Your task to perform on an android device: Open Google Chrome Image 0: 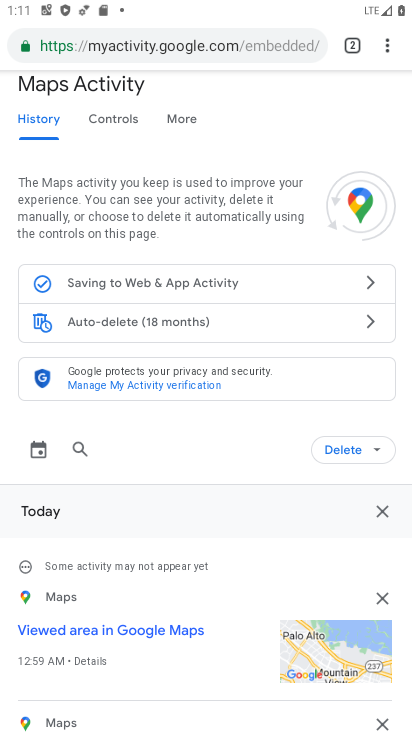
Step 0: press home button
Your task to perform on an android device: Open Google Chrome Image 1: 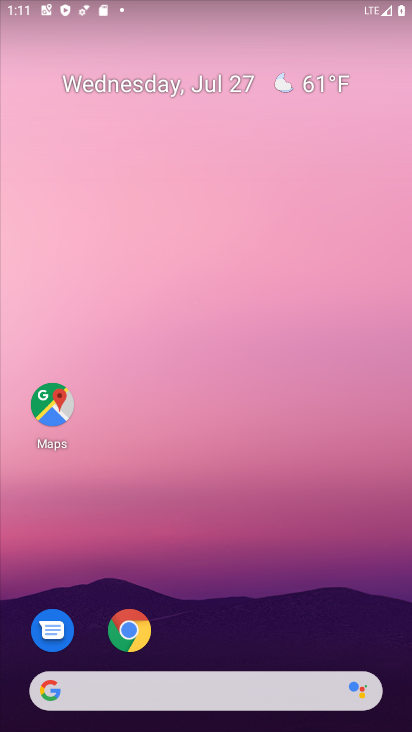
Step 1: drag from (228, 671) to (249, 219)
Your task to perform on an android device: Open Google Chrome Image 2: 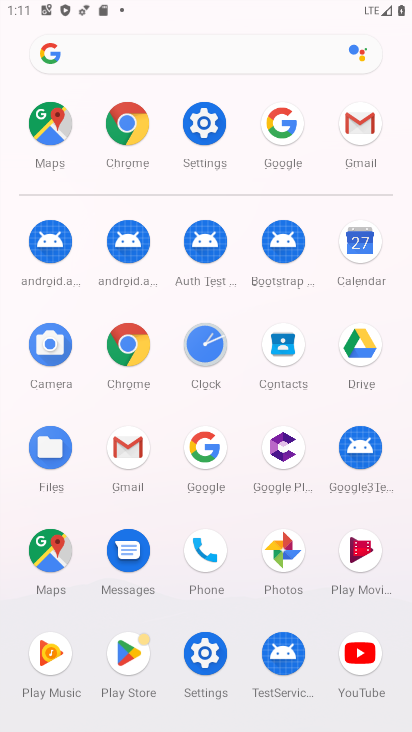
Step 2: click (129, 127)
Your task to perform on an android device: Open Google Chrome Image 3: 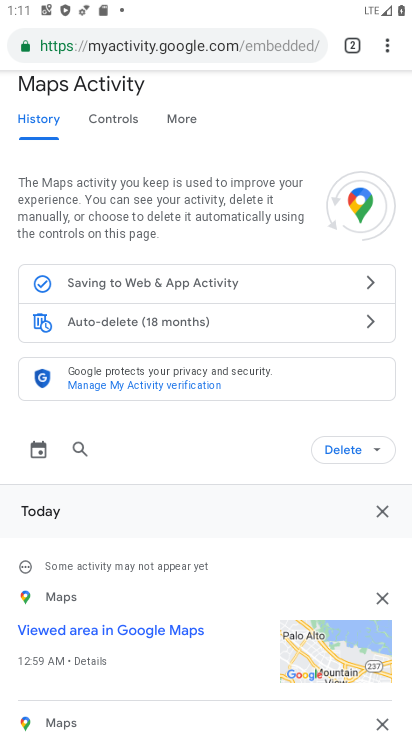
Step 3: drag from (199, 116) to (246, 526)
Your task to perform on an android device: Open Google Chrome Image 4: 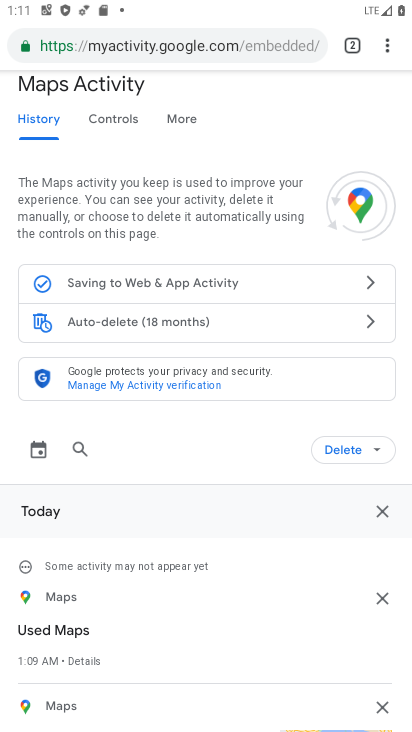
Step 4: click (354, 46)
Your task to perform on an android device: Open Google Chrome Image 5: 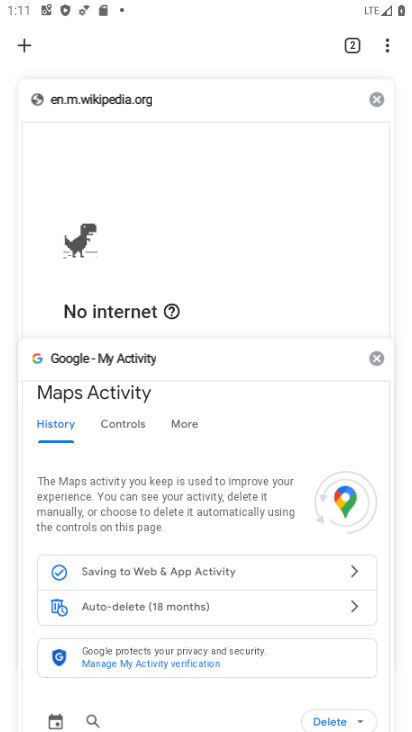
Step 5: click (376, 105)
Your task to perform on an android device: Open Google Chrome Image 6: 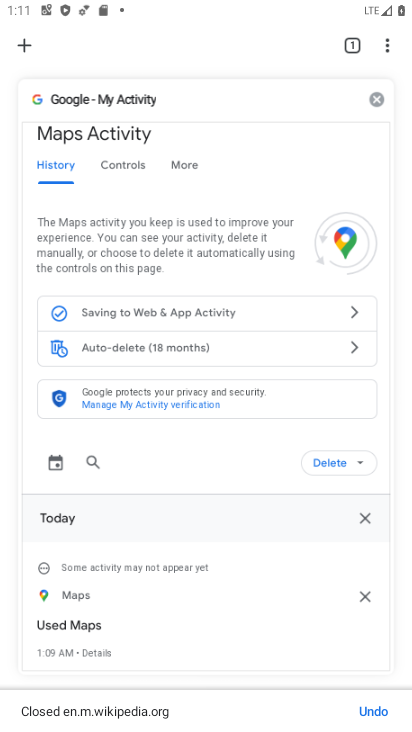
Step 6: click (29, 46)
Your task to perform on an android device: Open Google Chrome Image 7: 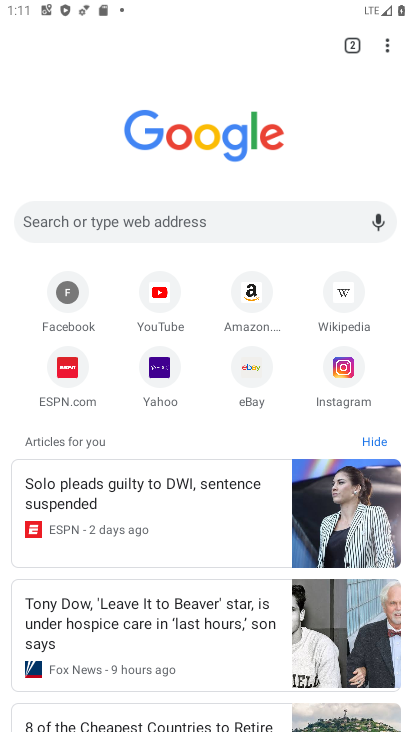
Step 7: task complete